Your task to perform on an android device: Open the stopwatch Image 0: 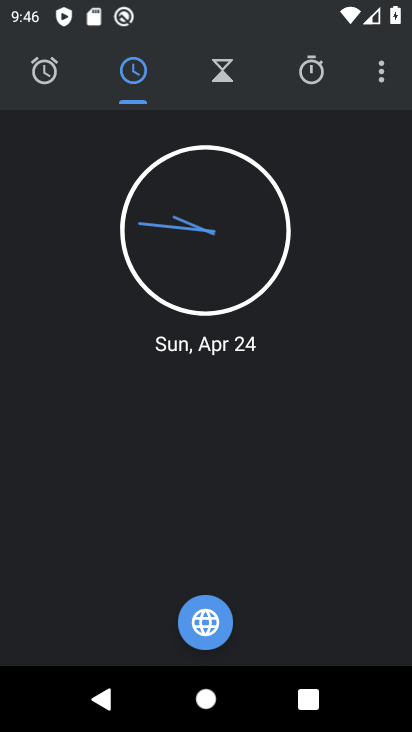
Step 0: press back button
Your task to perform on an android device: Open the stopwatch Image 1: 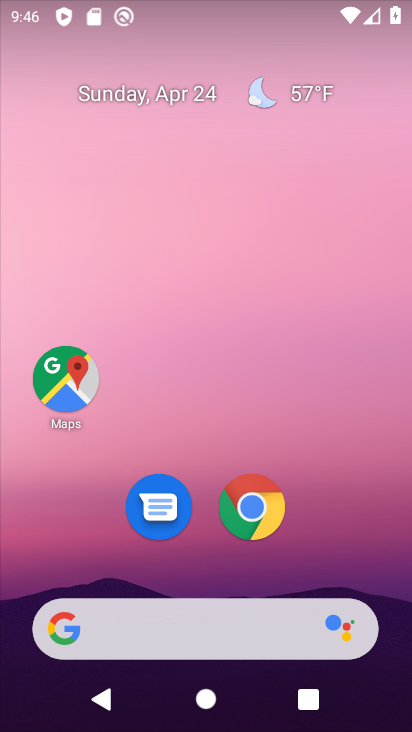
Step 1: drag from (218, 569) to (301, 51)
Your task to perform on an android device: Open the stopwatch Image 2: 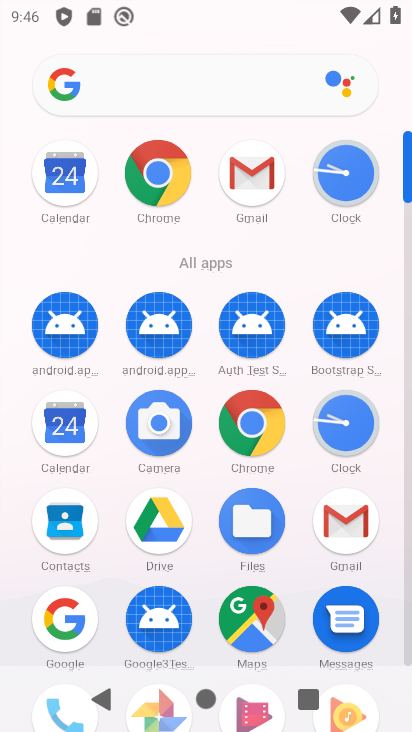
Step 2: click (330, 424)
Your task to perform on an android device: Open the stopwatch Image 3: 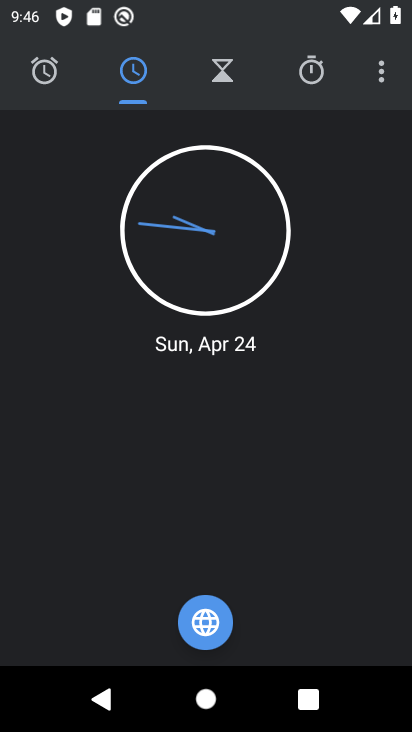
Step 3: click (321, 76)
Your task to perform on an android device: Open the stopwatch Image 4: 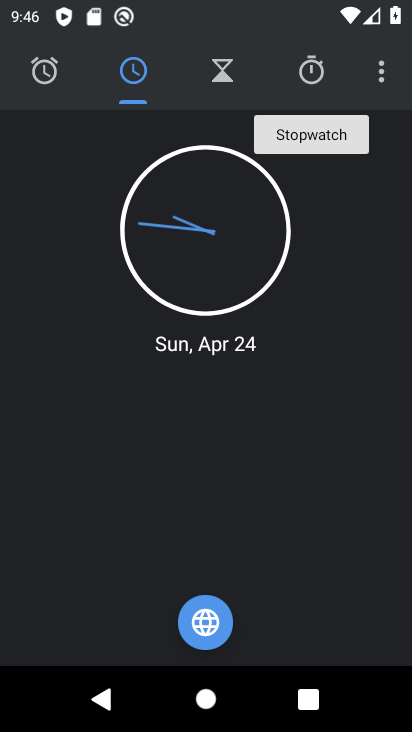
Step 4: click (305, 71)
Your task to perform on an android device: Open the stopwatch Image 5: 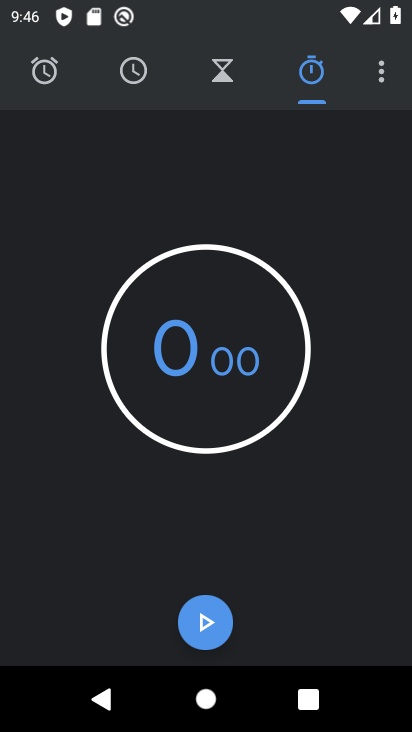
Step 5: task complete